Your task to perform on an android device: turn vacation reply on in the gmail app Image 0: 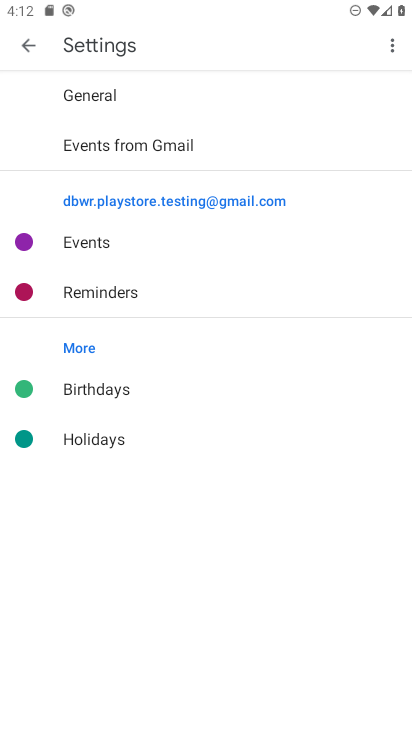
Step 0: press home button
Your task to perform on an android device: turn vacation reply on in the gmail app Image 1: 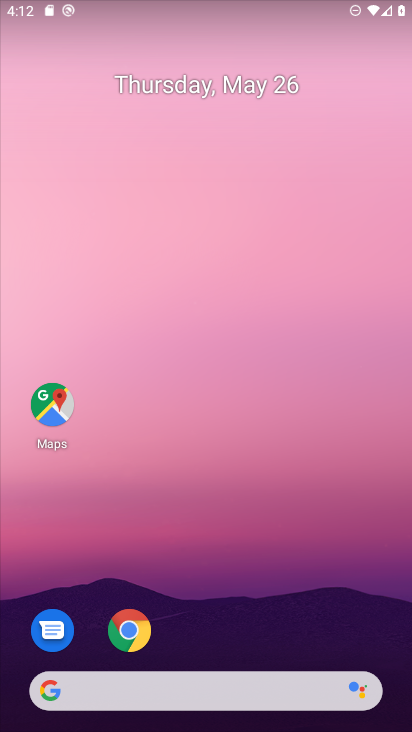
Step 1: drag from (227, 646) to (329, 196)
Your task to perform on an android device: turn vacation reply on in the gmail app Image 2: 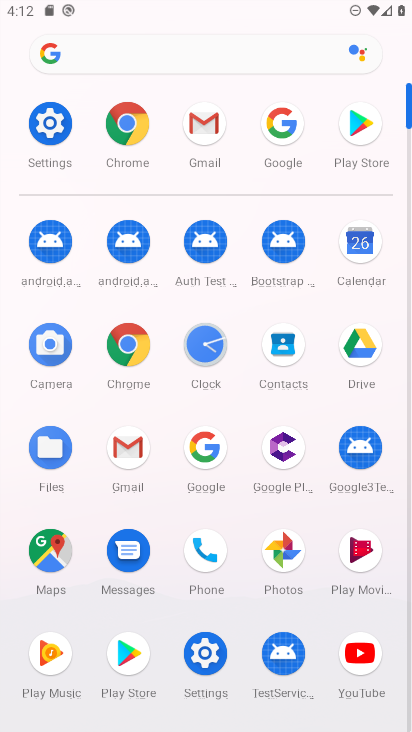
Step 2: click (126, 448)
Your task to perform on an android device: turn vacation reply on in the gmail app Image 3: 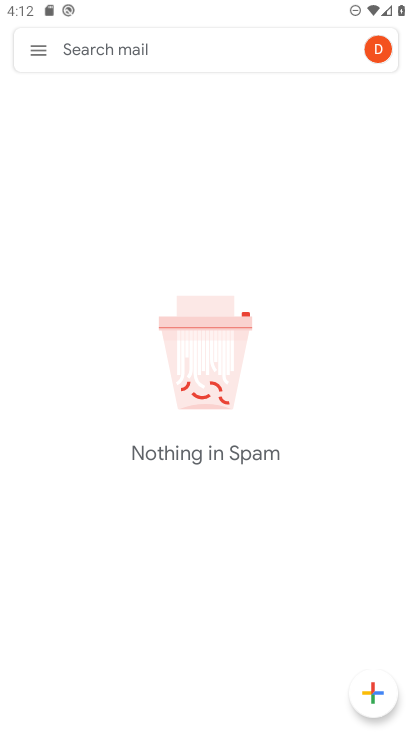
Step 3: click (38, 48)
Your task to perform on an android device: turn vacation reply on in the gmail app Image 4: 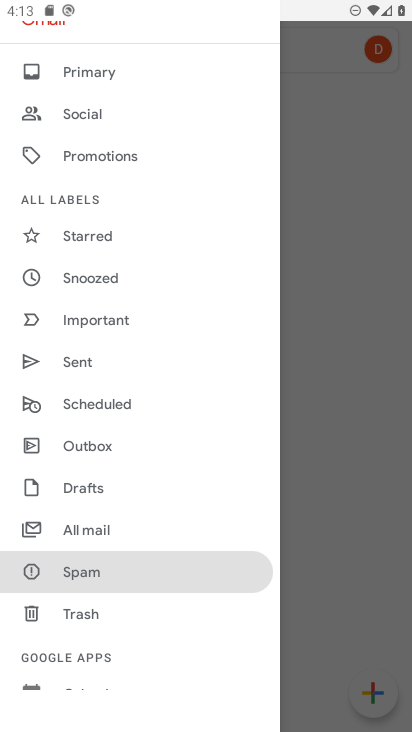
Step 4: drag from (115, 624) to (181, 489)
Your task to perform on an android device: turn vacation reply on in the gmail app Image 5: 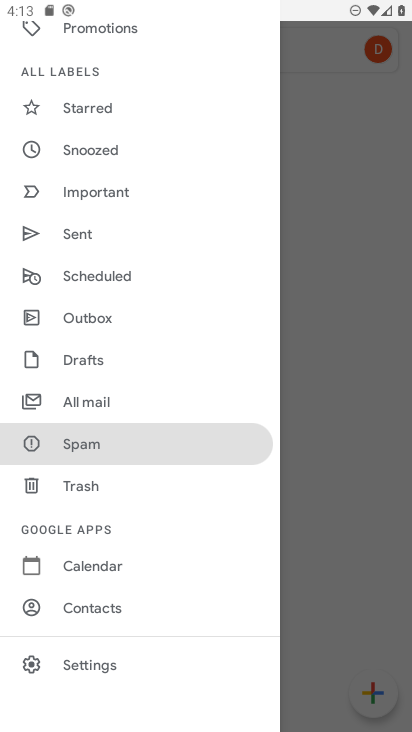
Step 5: click (97, 660)
Your task to perform on an android device: turn vacation reply on in the gmail app Image 6: 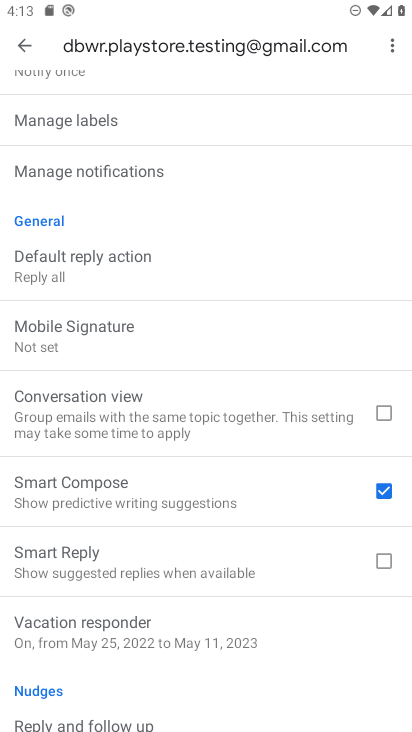
Step 6: click (150, 617)
Your task to perform on an android device: turn vacation reply on in the gmail app Image 7: 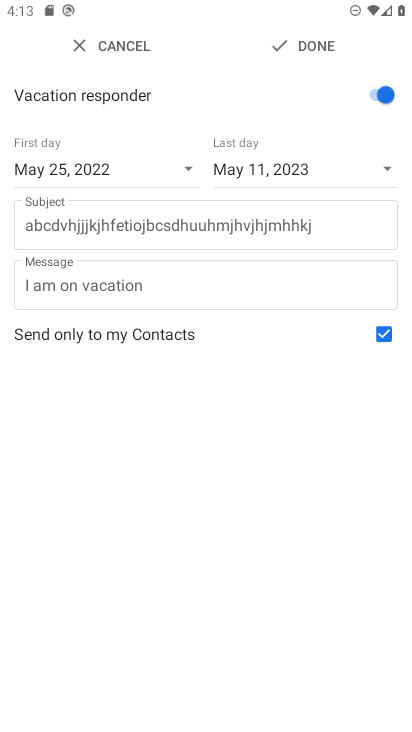
Step 7: task complete